Your task to perform on an android device: Clear the shopping cart on bestbuy. Add "beats solo 3" to the cart on bestbuy, then select checkout. Image 0: 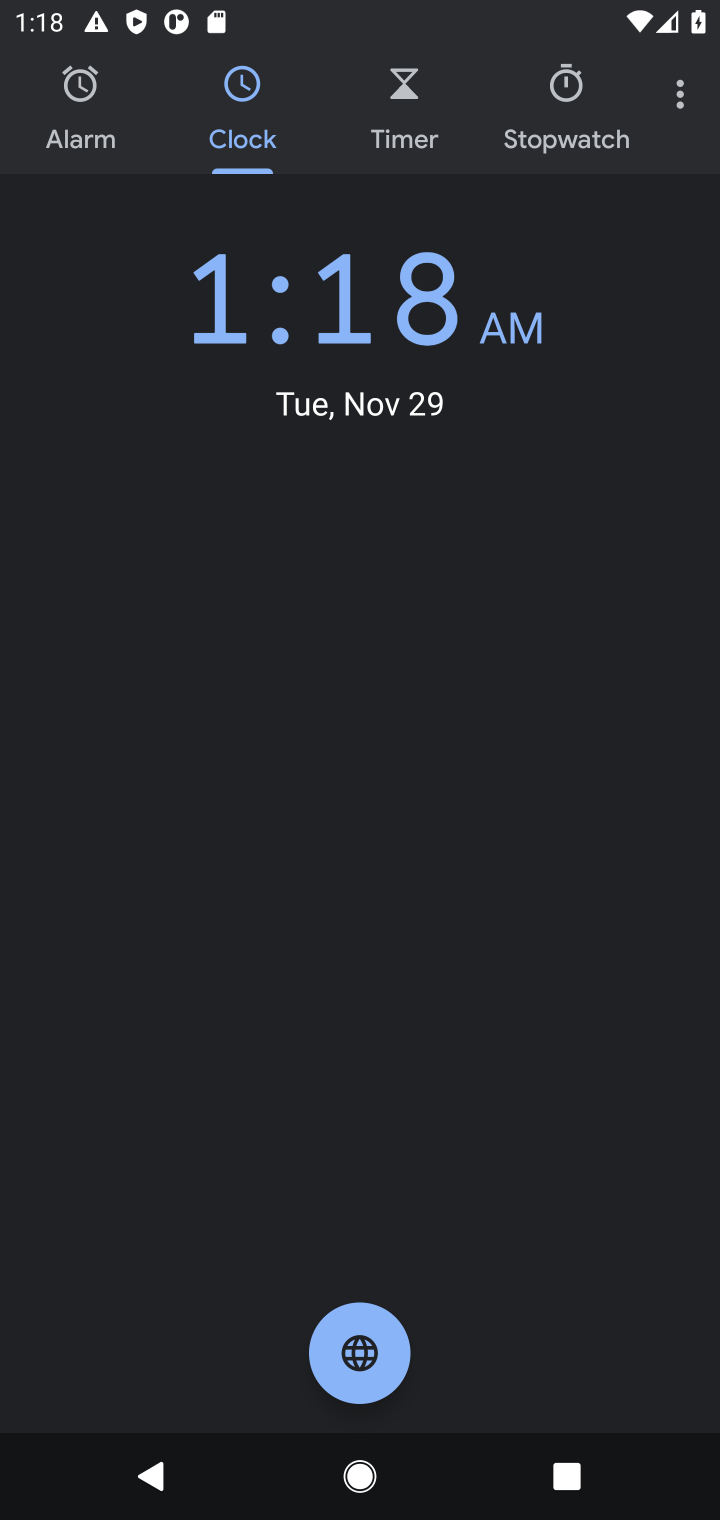
Step 0: press home button
Your task to perform on an android device: Clear the shopping cart on bestbuy. Add "beats solo 3" to the cart on bestbuy, then select checkout. Image 1: 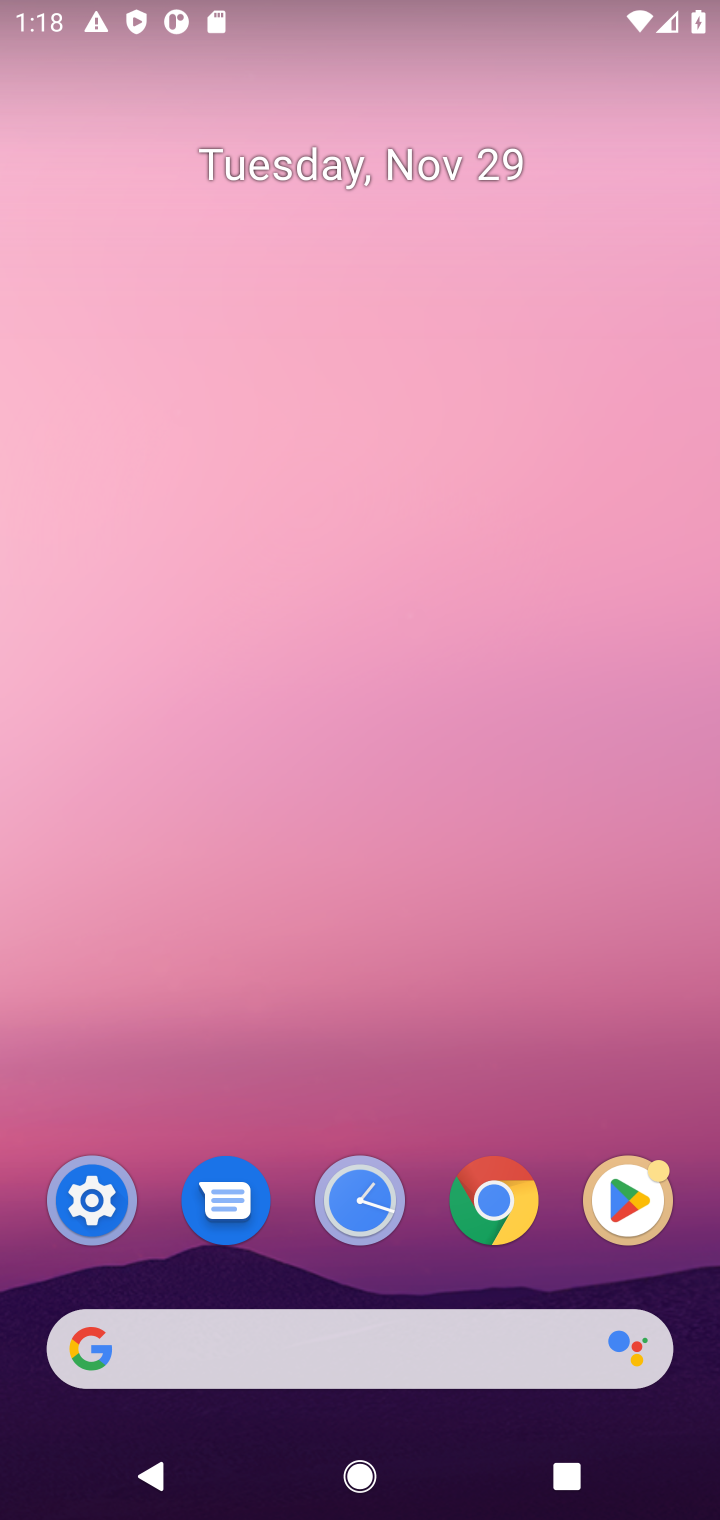
Step 1: click (411, 1319)
Your task to perform on an android device: Clear the shopping cart on bestbuy. Add "beats solo 3" to the cart on bestbuy, then select checkout. Image 2: 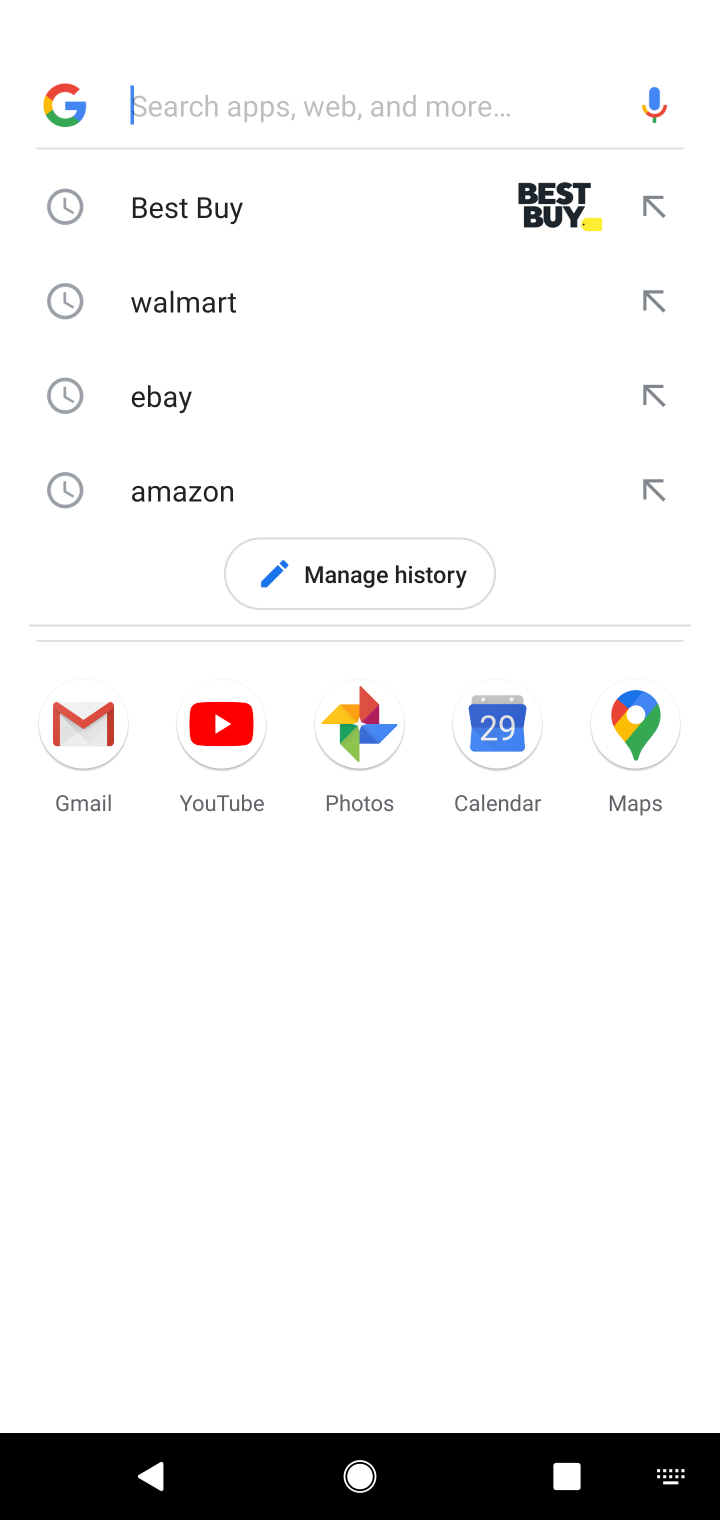
Step 2: type "bestbuy"
Your task to perform on an android device: Clear the shopping cart on bestbuy. Add "beats solo 3" to the cart on bestbuy, then select checkout. Image 3: 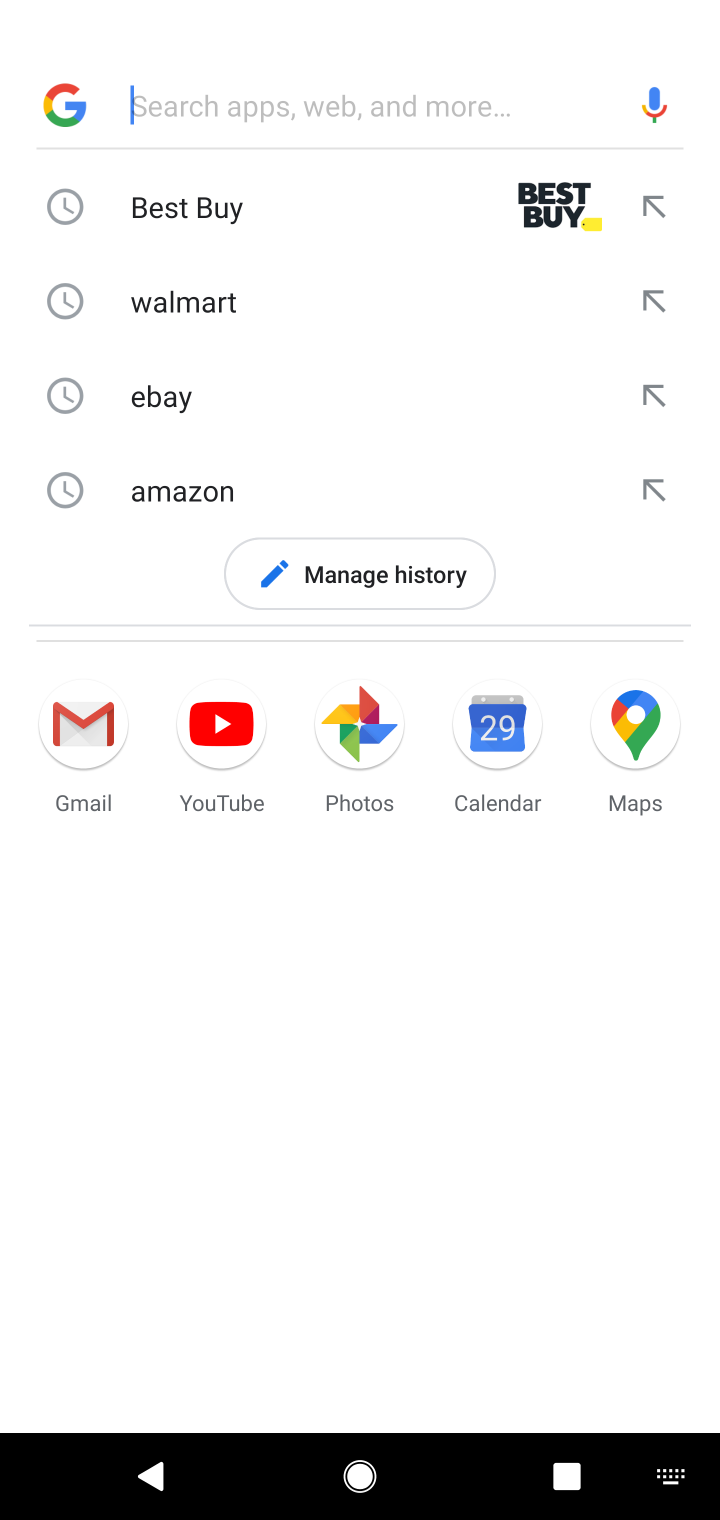
Step 3: click (418, 213)
Your task to perform on an android device: Clear the shopping cart on bestbuy. Add "beats solo 3" to the cart on bestbuy, then select checkout. Image 4: 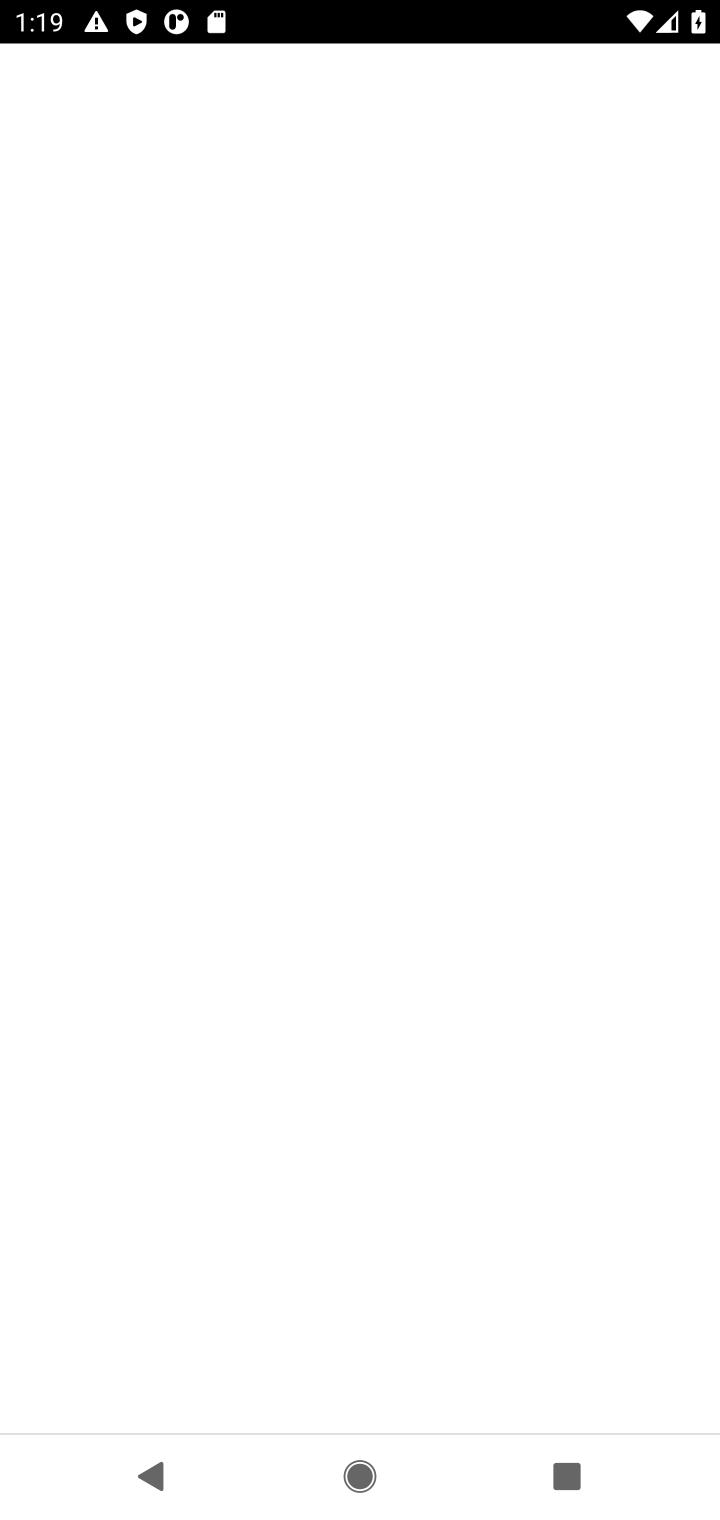
Step 4: task complete